Your task to perform on an android device: Go to Maps Image 0: 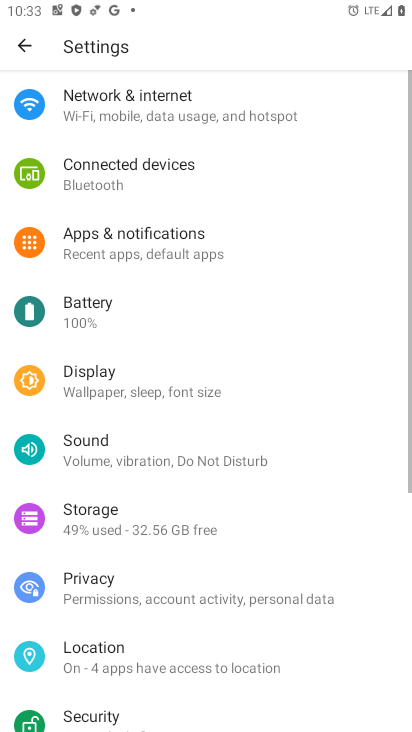
Step 0: press home button
Your task to perform on an android device: Go to Maps Image 1: 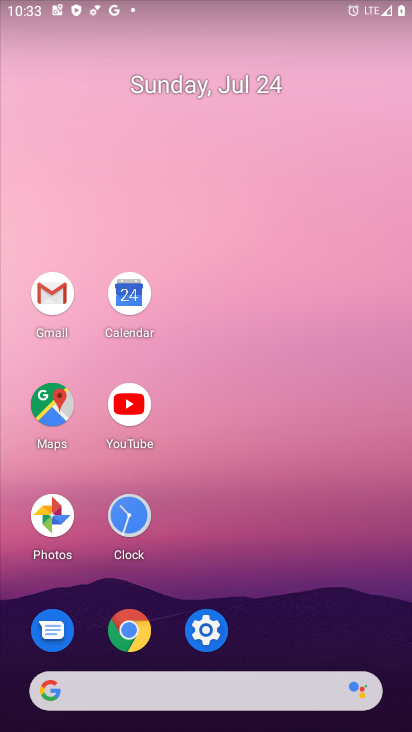
Step 1: click (46, 395)
Your task to perform on an android device: Go to Maps Image 2: 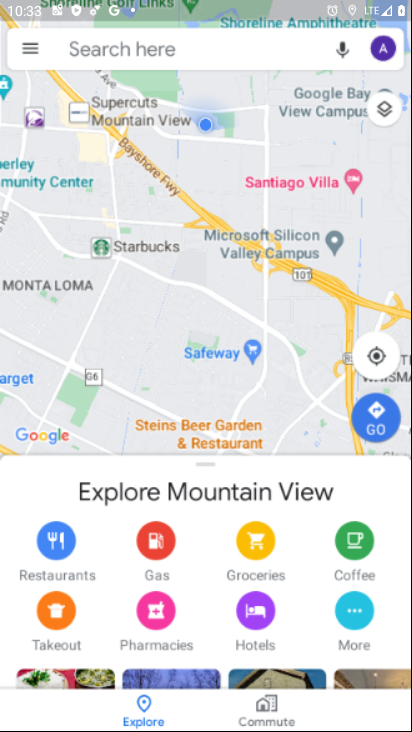
Step 2: task complete